Your task to perform on an android device: Open Google Chrome and open the bookmarks view Image 0: 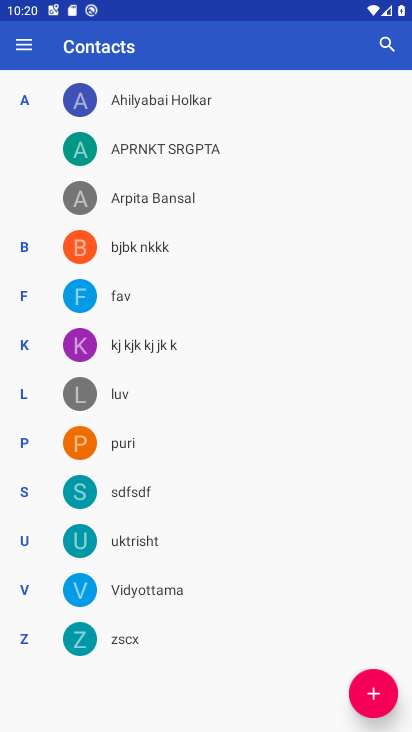
Step 0: press home button
Your task to perform on an android device: Open Google Chrome and open the bookmarks view Image 1: 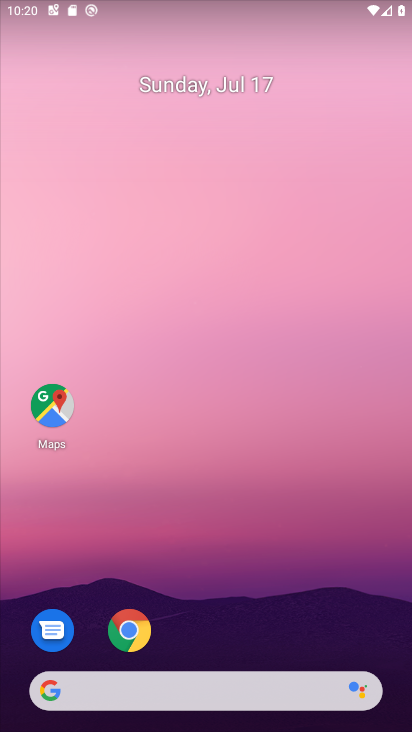
Step 1: click (137, 622)
Your task to perform on an android device: Open Google Chrome and open the bookmarks view Image 2: 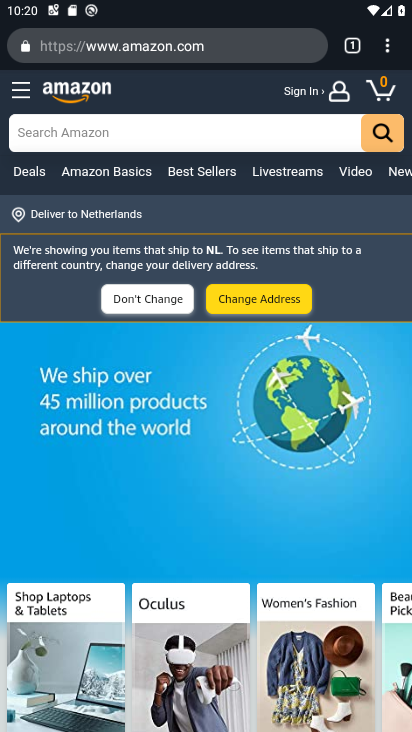
Step 2: click (394, 44)
Your task to perform on an android device: Open Google Chrome and open the bookmarks view Image 3: 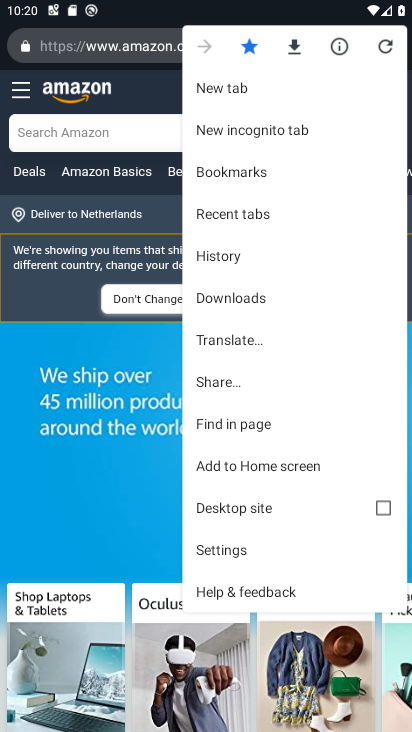
Step 3: click (252, 165)
Your task to perform on an android device: Open Google Chrome and open the bookmarks view Image 4: 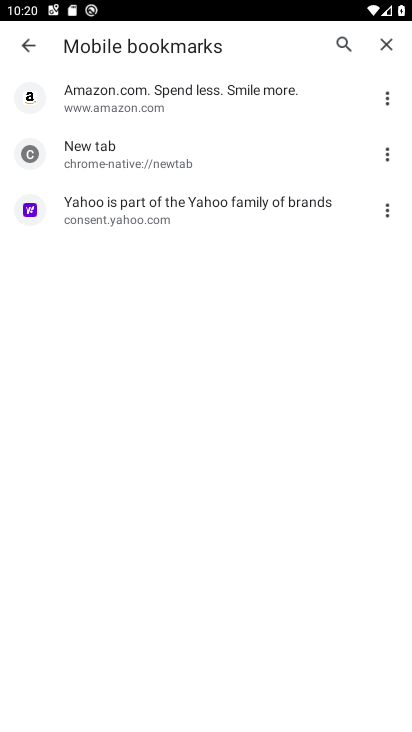
Step 4: task complete